Your task to perform on an android device: open chrome and create a bookmark for the current page Image 0: 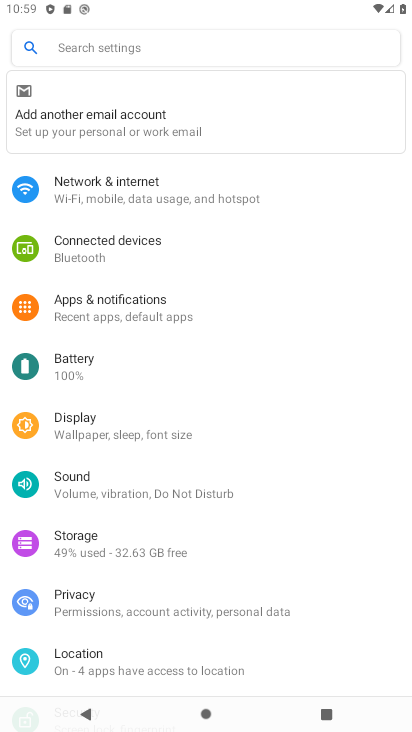
Step 0: press home button
Your task to perform on an android device: open chrome and create a bookmark for the current page Image 1: 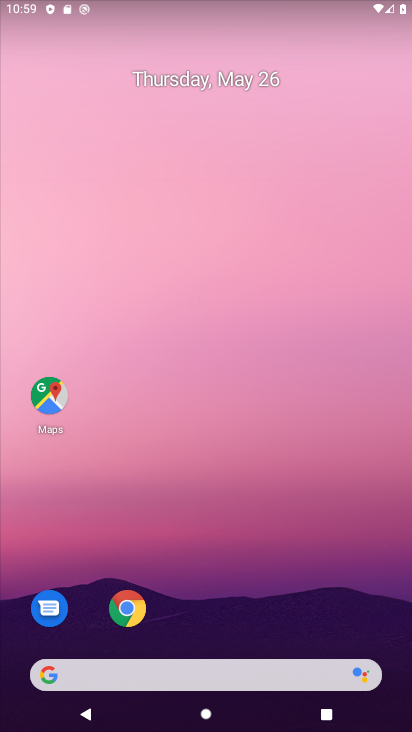
Step 1: click (116, 603)
Your task to perform on an android device: open chrome and create a bookmark for the current page Image 2: 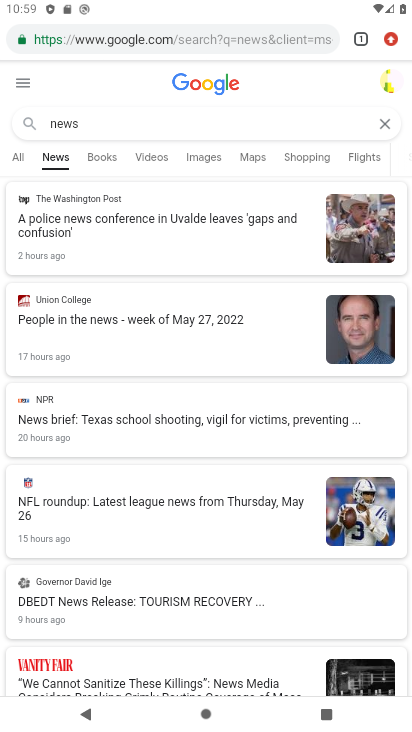
Step 2: task complete